Your task to perform on an android device: turn on the 24-hour format for clock Image 0: 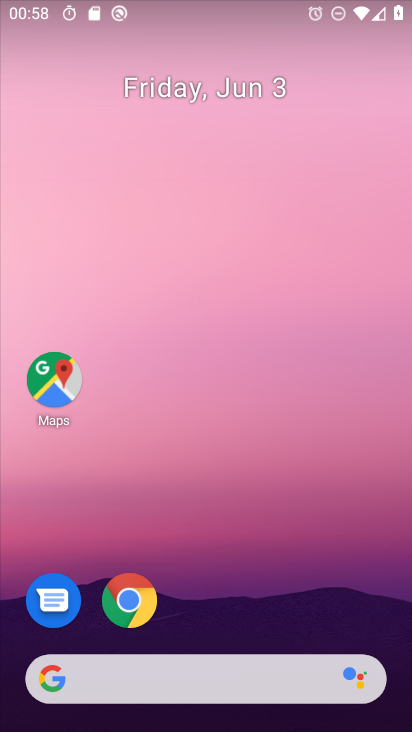
Step 0: drag from (173, 566) to (220, 104)
Your task to perform on an android device: turn on the 24-hour format for clock Image 1: 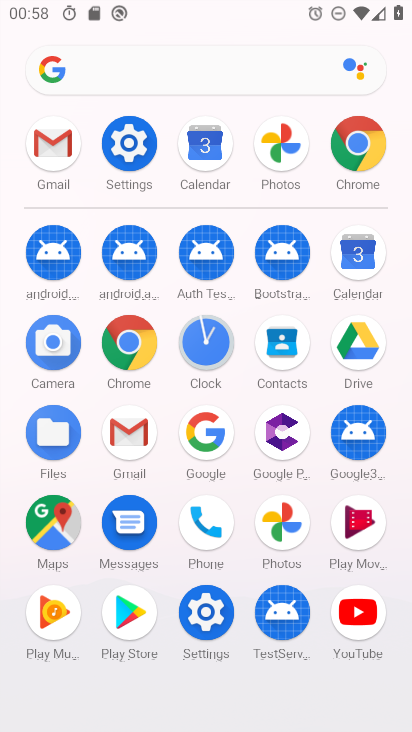
Step 1: click (212, 336)
Your task to perform on an android device: turn on the 24-hour format for clock Image 2: 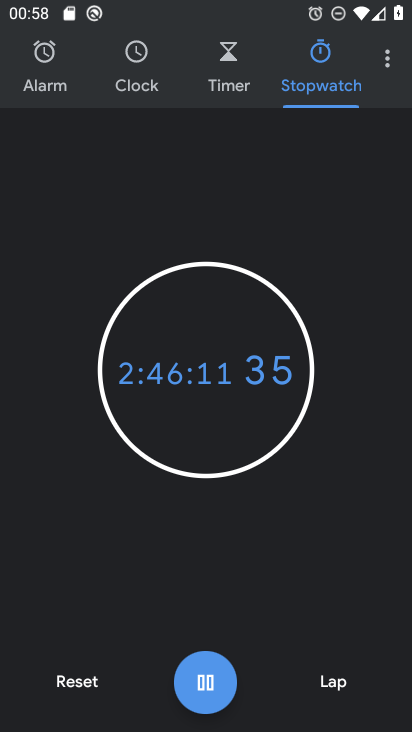
Step 2: click (386, 68)
Your task to perform on an android device: turn on the 24-hour format for clock Image 3: 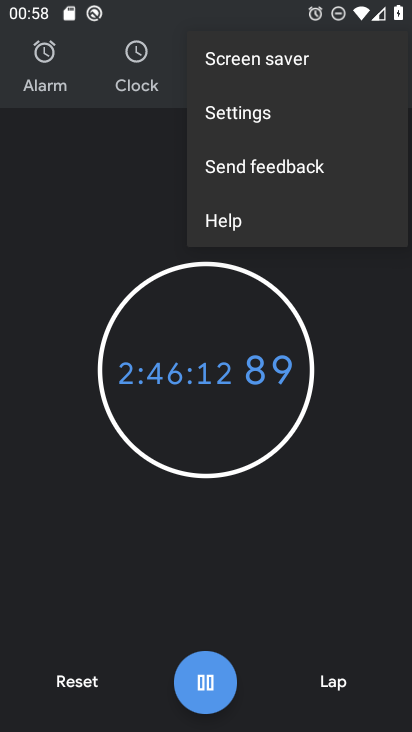
Step 3: click (256, 126)
Your task to perform on an android device: turn on the 24-hour format for clock Image 4: 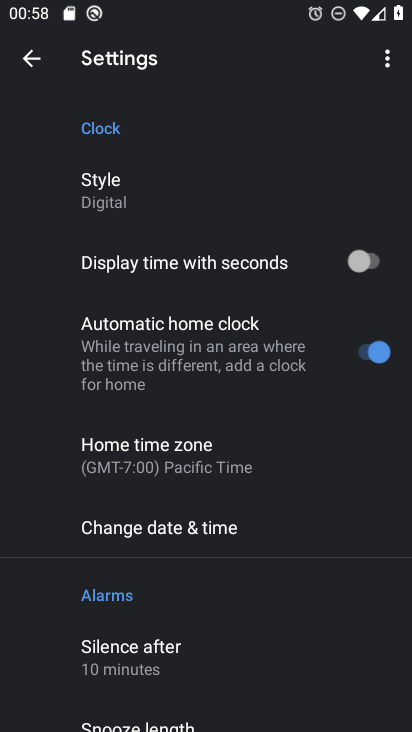
Step 4: click (184, 542)
Your task to perform on an android device: turn on the 24-hour format for clock Image 5: 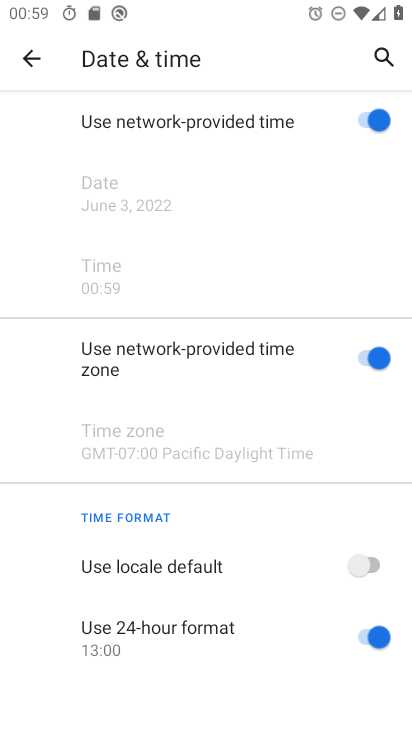
Step 5: task complete